Your task to perform on an android device: change text size in settings app Image 0: 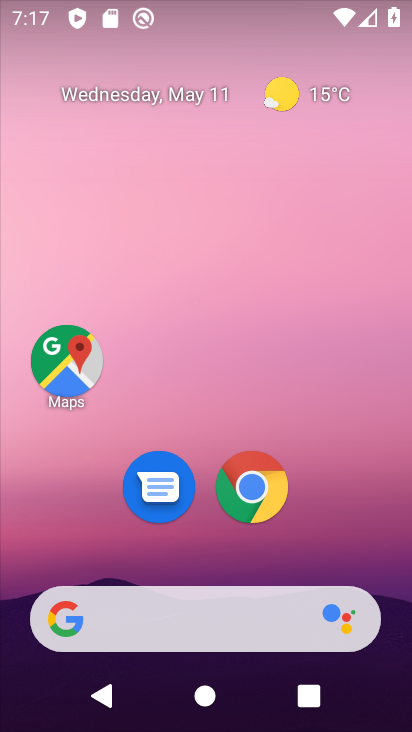
Step 0: drag from (298, 656) to (306, 365)
Your task to perform on an android device: change text size in settings app Image 1: 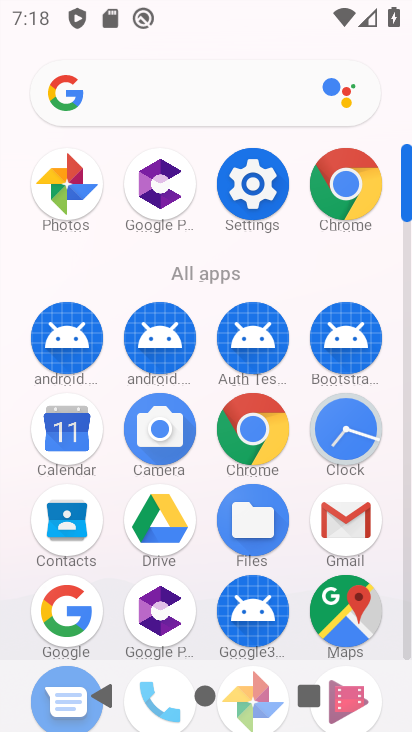
Step 1: click (271, 194)
Your task to perform on an android device: change text size in settings app Image 2: 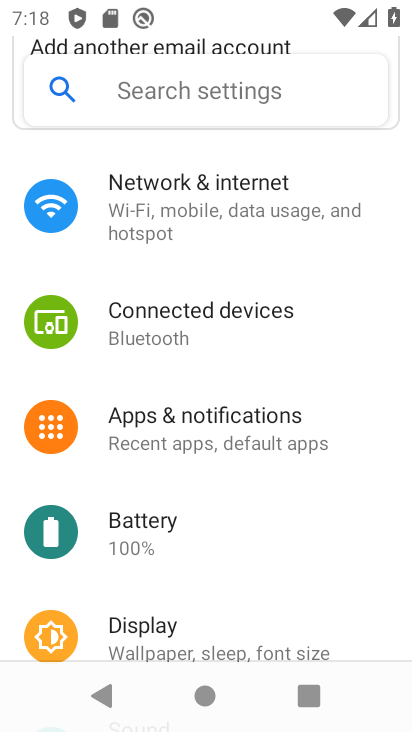
Step 2: click (189, 101)
Your task to perform on an android device: change text size in settings app Image 3: 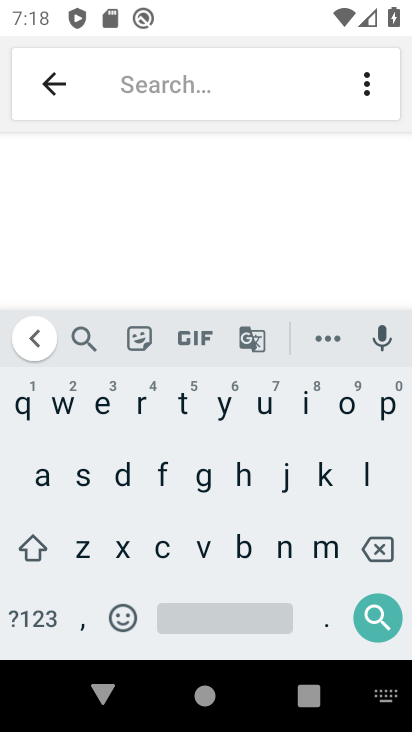
Step 3: click (79, 480)
Your task to perform on an android device: change text size in settings app Image 4: 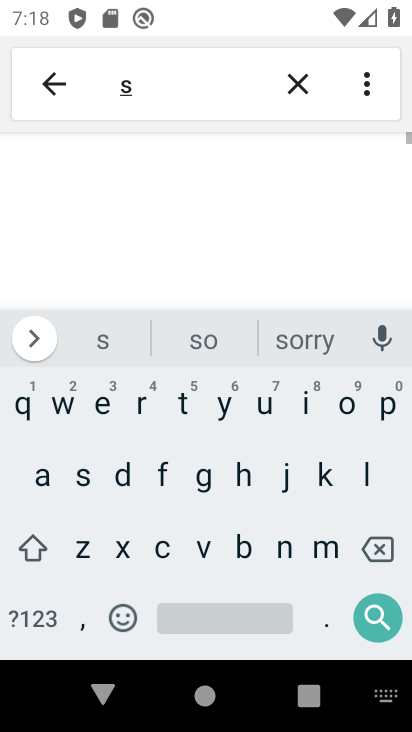
Step 4: click (297, 413)
Your task to perform on an android device: change text size in settings app Image 5: 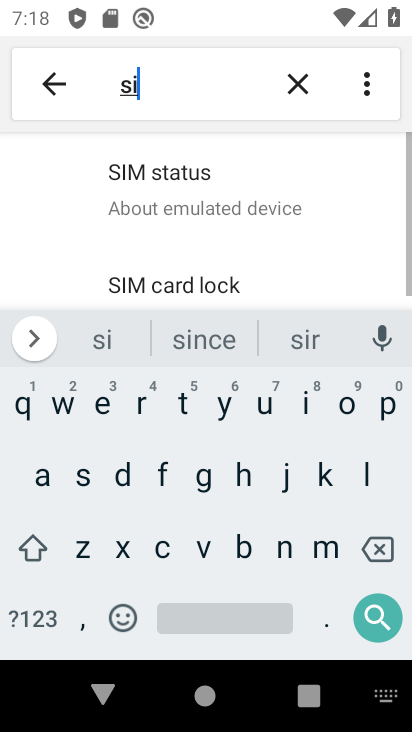
Step 5: click (78, 549)
Your task to perform on an android device: change text size in settings app Image 6: 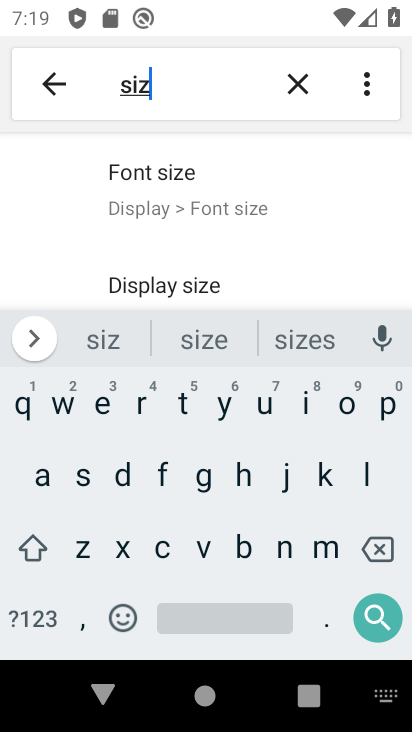
Step 6: click (201, 213)
Your task to perform on an android device: change text size in settings app Image 7: 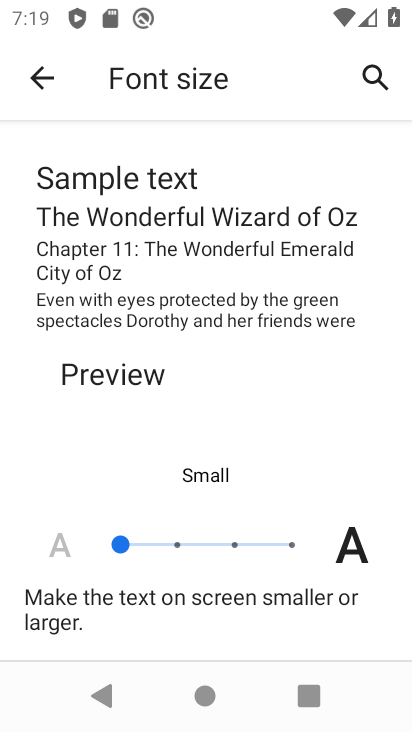
Step 7: click (160, 551)
Your task to perform on an android device: change text size in settings app Image 8: 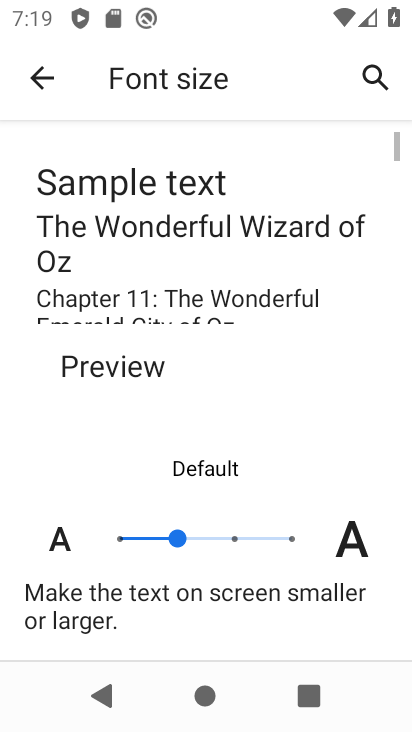
Step 8: task complete